Your task to perform on an android device: visit the assistant section in the google photos Image 0: 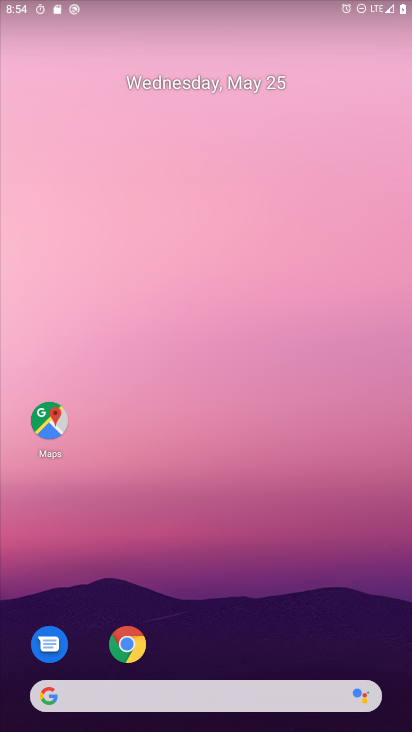
Step 0: drag from (315, 638) to (231, 30)
Your task to perform on an android device: visit the assistant section in the google photos Image 1: 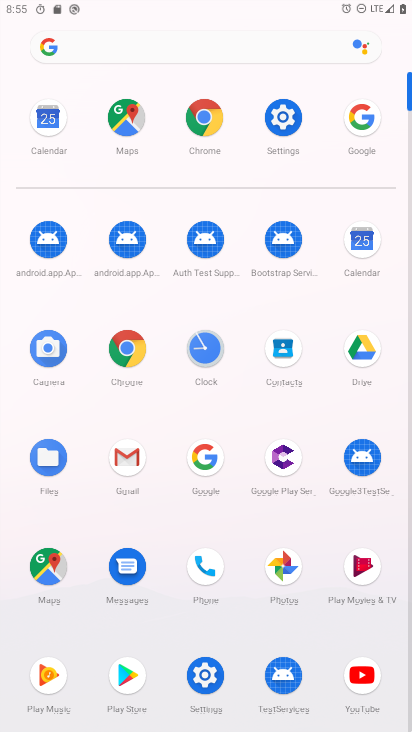
Step 1: click (285, 556)
Your task to perform on an android device: visit the assistant section in the google photos Image 2: 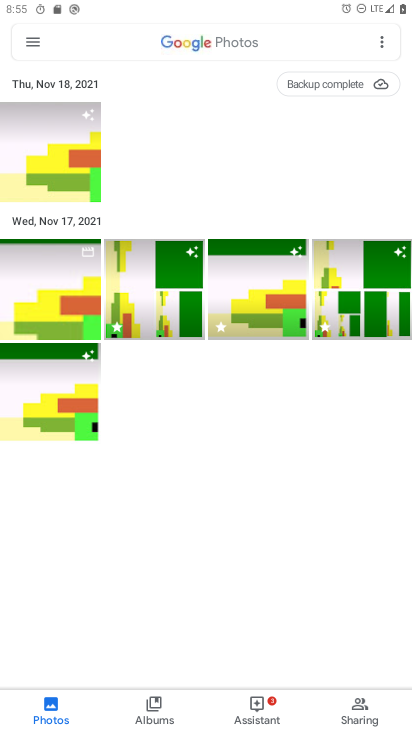
Step 2: click (258, 719)
Your task to perform on an android device: visit the assistant section in the google photos Image 3: 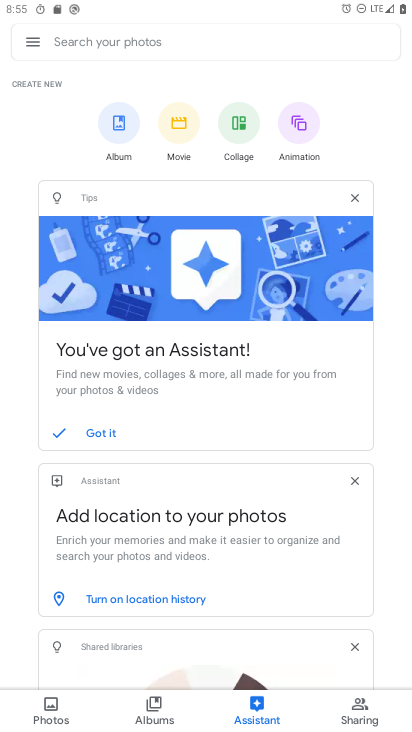
Step 3: task complete